Your task to perform on an android device: Find coffee shops on Maps Image 0: 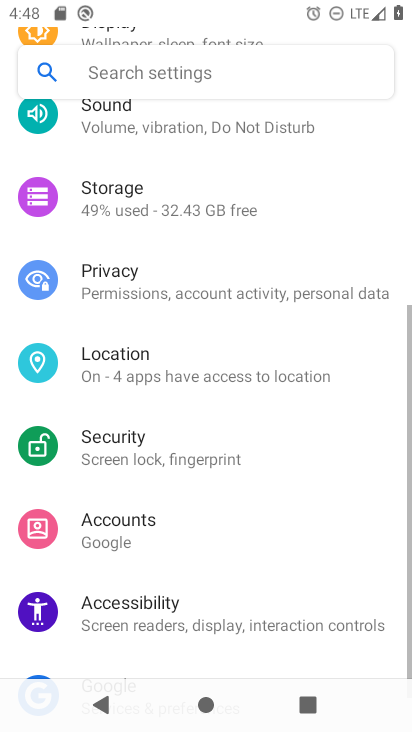
Step 0: drag from (196, 608) to (189, 262)
Your task to perform on an android device: Find coffee shops on Maps Image 1: 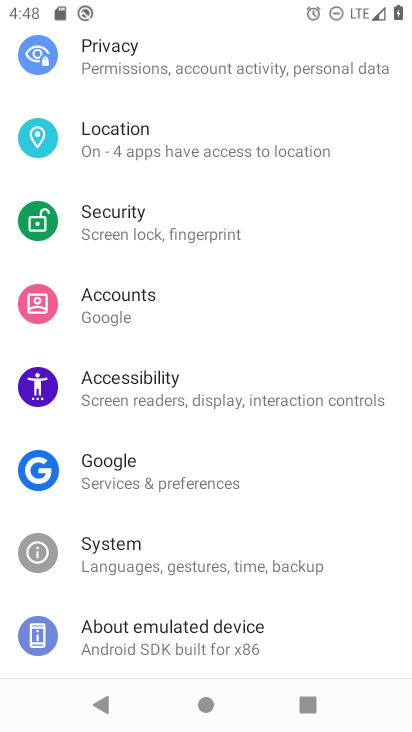
Step 1: press home button
Your task to perform on an android device: Find coffee shops on Maps Image 2: 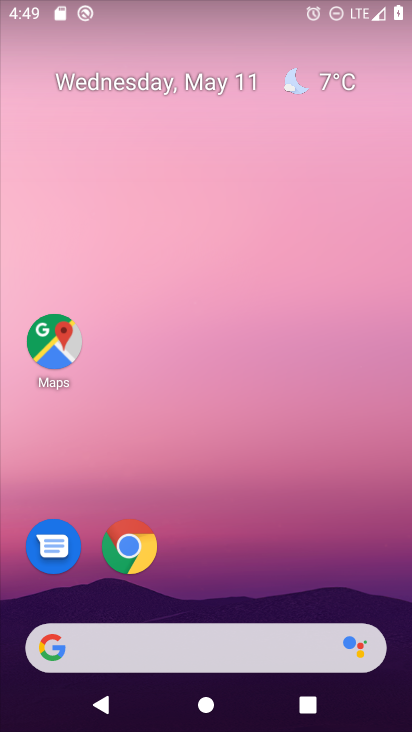
Step 2: drag from (235, 343) to (281, 7)
Your task to perform on an android device: Find coffee shops on Maps Image 3: 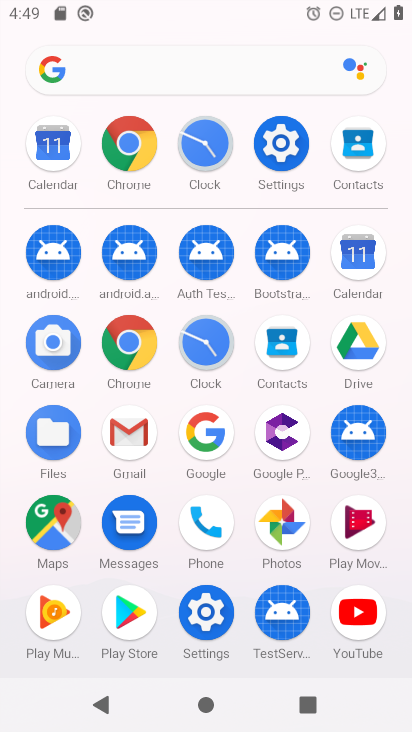
Step 3: click (65, 515)
Your task to perform on an android device: Find coffee shops on Maps Image 4: 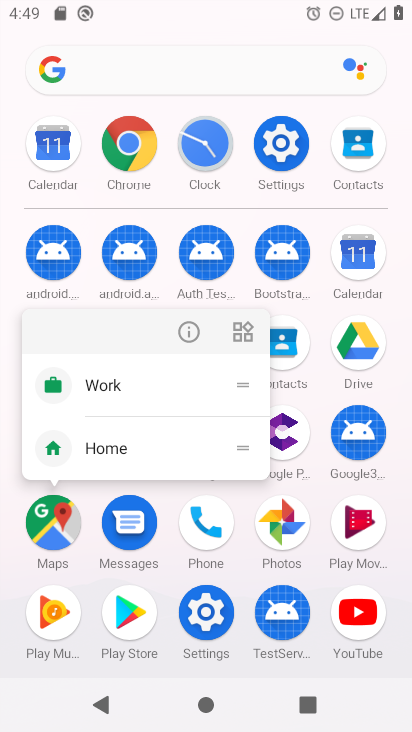
Step 4: click (54, 536)
Your task to perform on an android device: Find coffee shops on Maps Image 5: 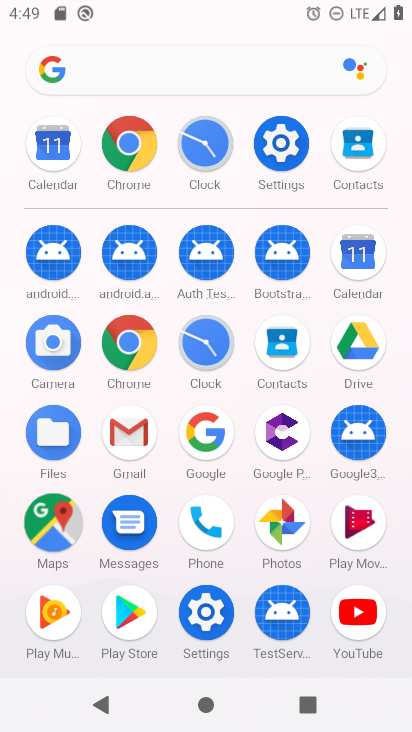
Step 5: click (54, 536)
Your task to perform on an android device: Find coffee shops on Maps Image 6: 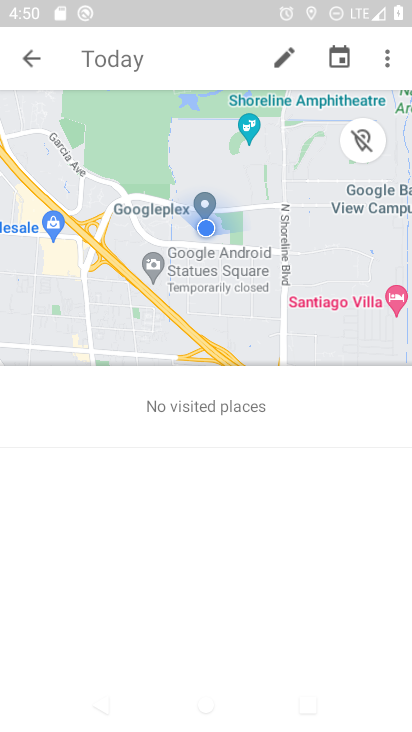
Step 6: press back button
Your task to perform on an android device: Find coffee shops on Maps Image 7: 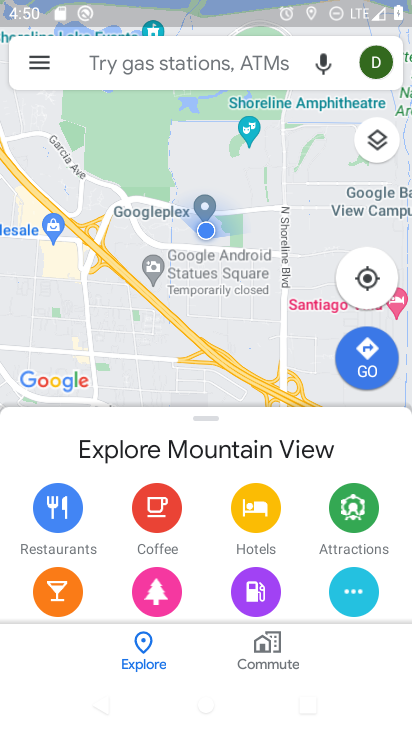
Step 7: click (290, 62)
Your task to perform on an android device: Find coffee shops on Maps Image 8: 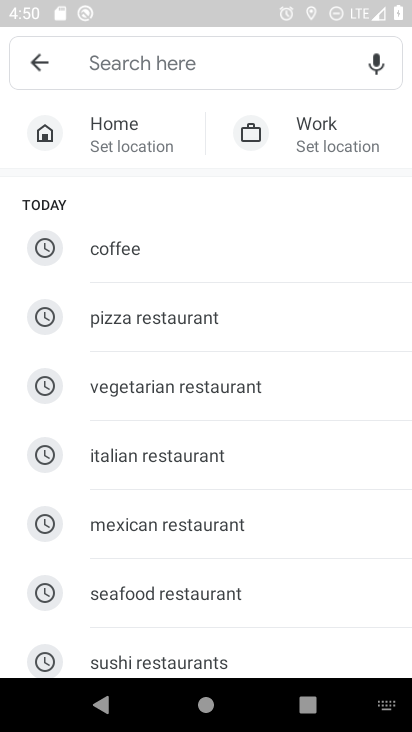
Step 8: type "coffee shops"
Your task to perform on an android device: Find coffee shops on Maps Image 9: 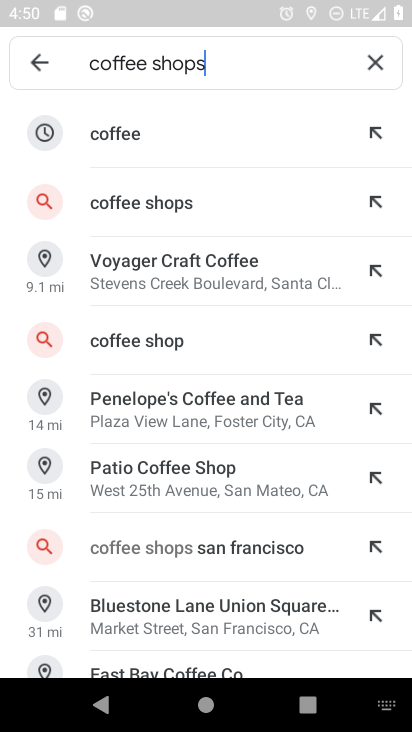
Step 9: click (241, 206)
Your task to perform on an android device: Find coffee shops on Maps Image 10: 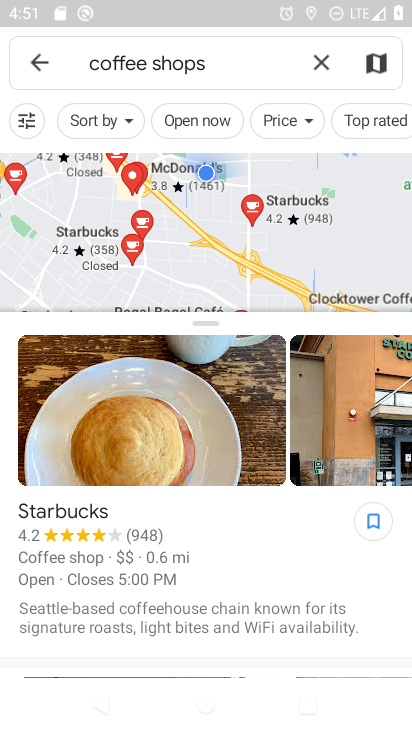
Step 10: task complete